Your task to perform on an android device: Open network settings Image 0: 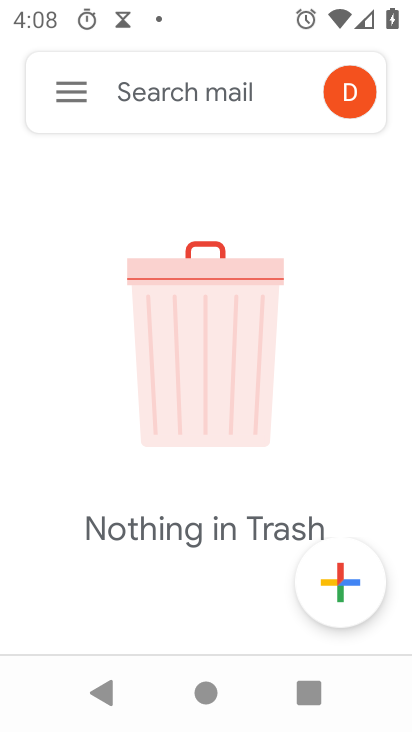
Step 0: press home button
Your task to perform on an android device: Open network settings Image 1: 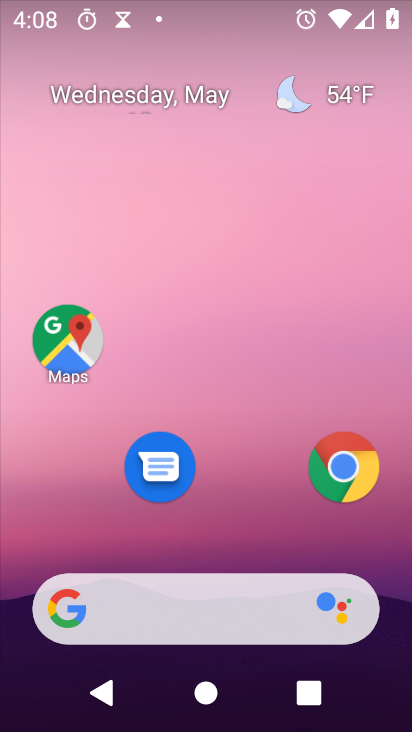
Step 1: drag from (229, 543) to (226, 12)
Your task to perform on an android device: Open network settings Image 2: 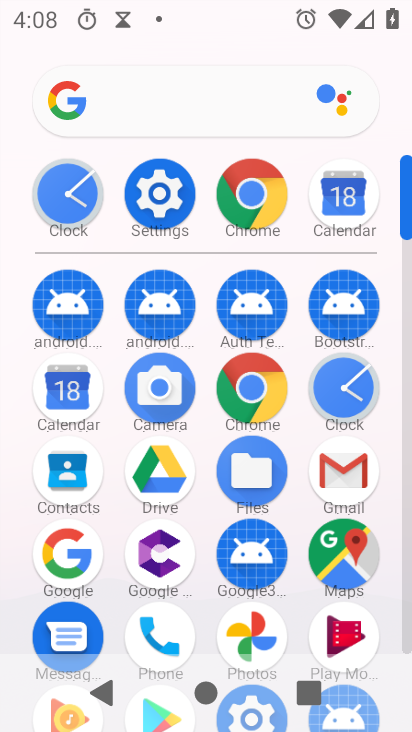
Step 2: click (177, 188)
Your task to perform on an android device: Open network settings Image 3: 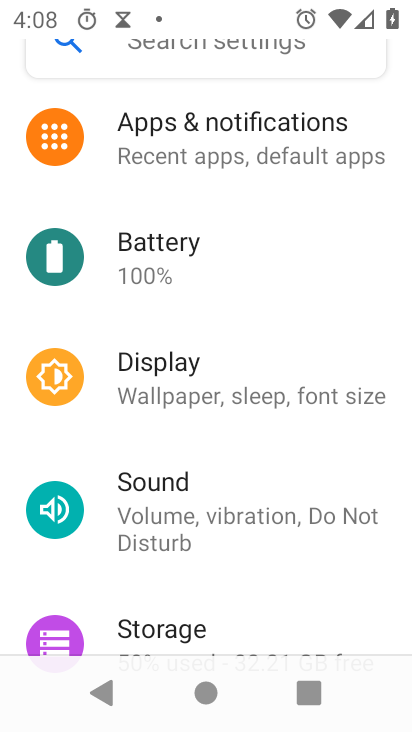
Step 3: drag from (177, 188) to (149, 638)
Your task to perform on an android device: Open network settings Image 4: 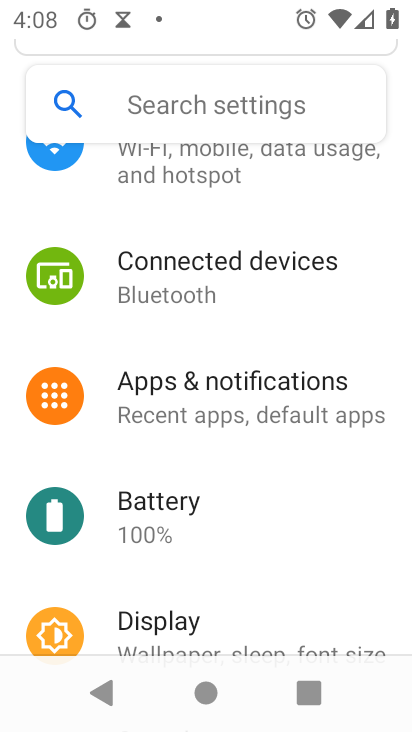
Step 4: click (207, 194)
Your task to perform on an android device: Open network settings Image 5: 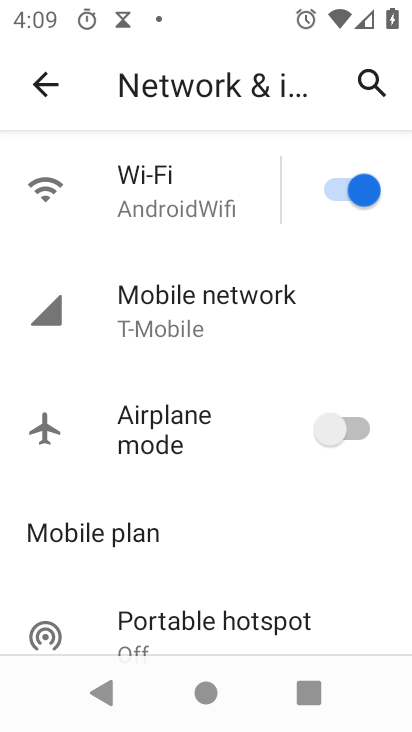
Step 5: task complete